Your task to perform on an android device: check google app version Image 0: 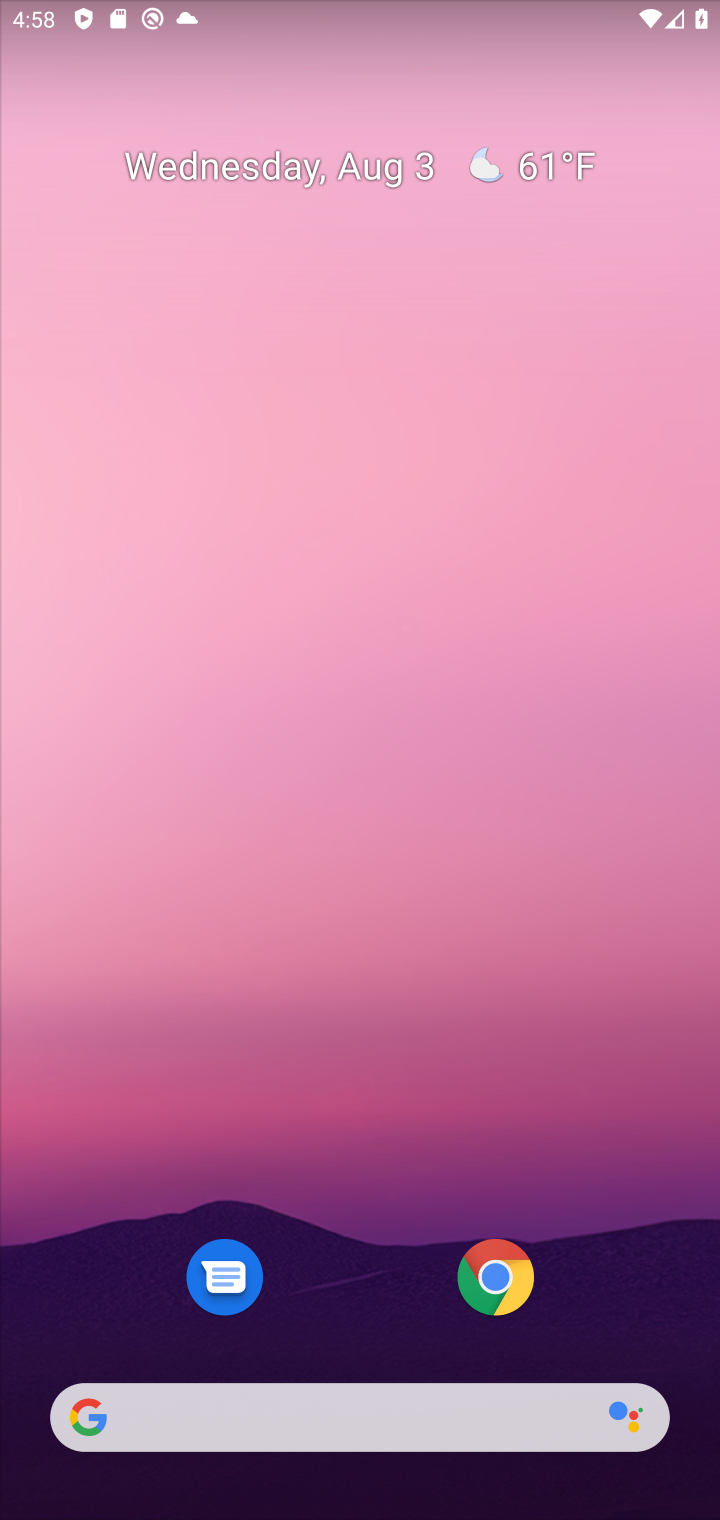
Step 0: drag from (390, 971) to (430, 148)
Your task to perform on an android device: check google app version Image 1: 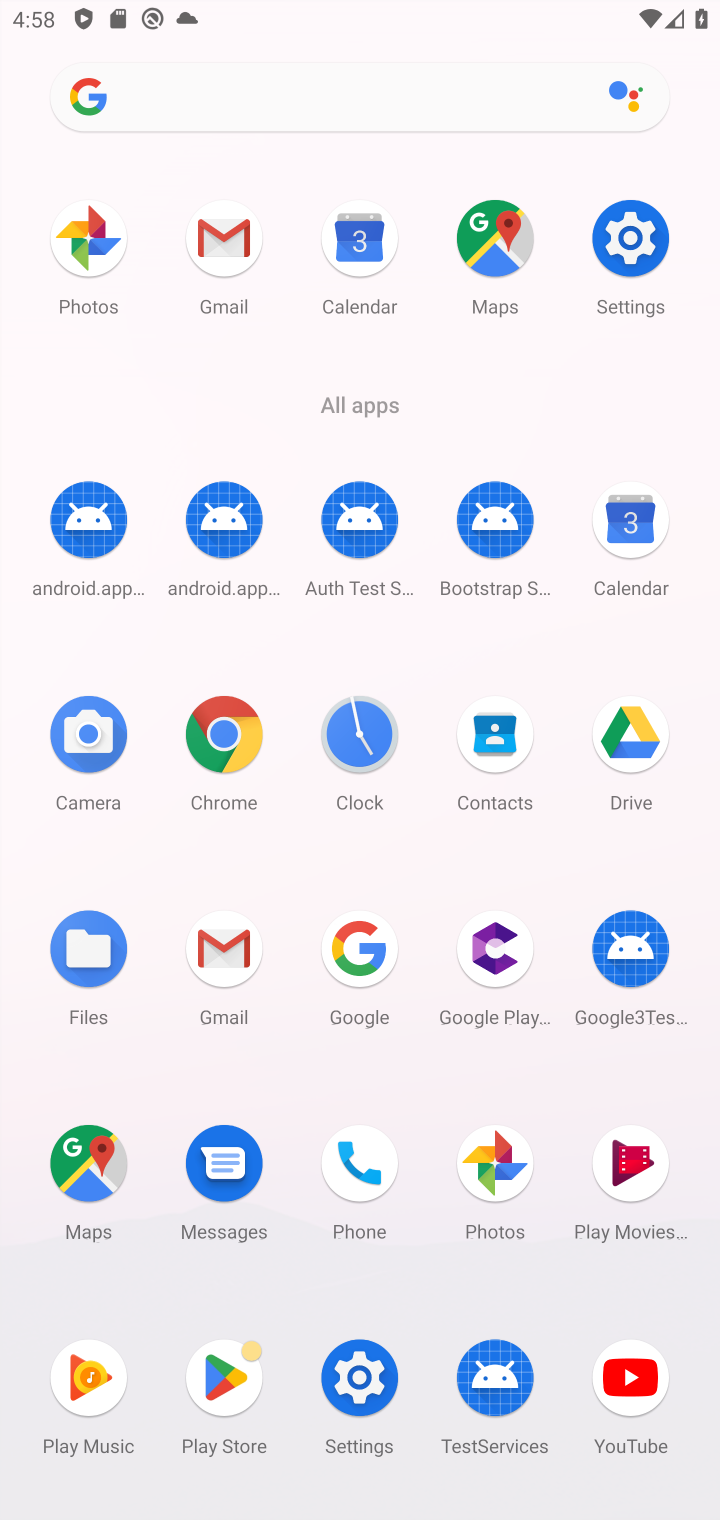
Step 1: click (354, 955)
Your task to perform on an android device: check google app version Image 2: 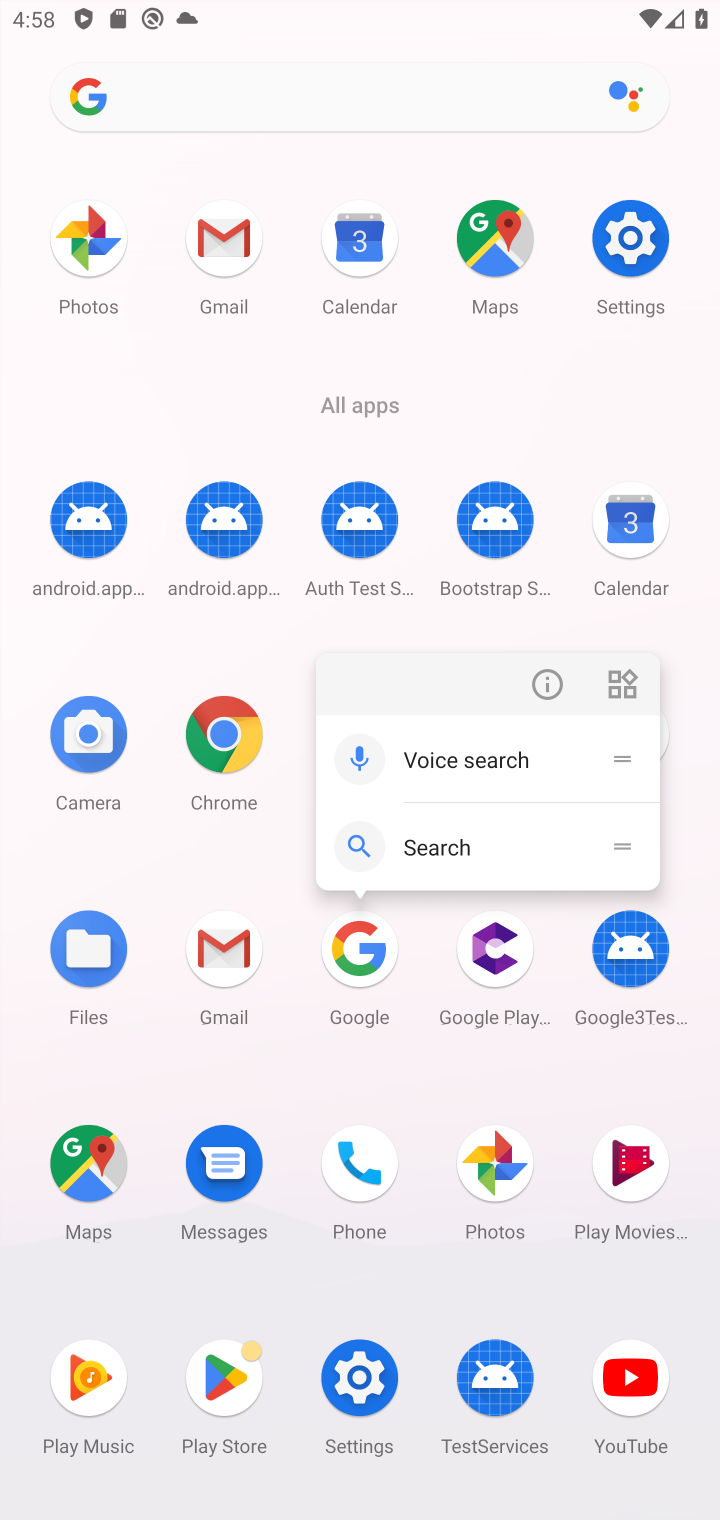
Step 2: click (368, 955)
Your task to perform on an android device: check google app version Image 3: 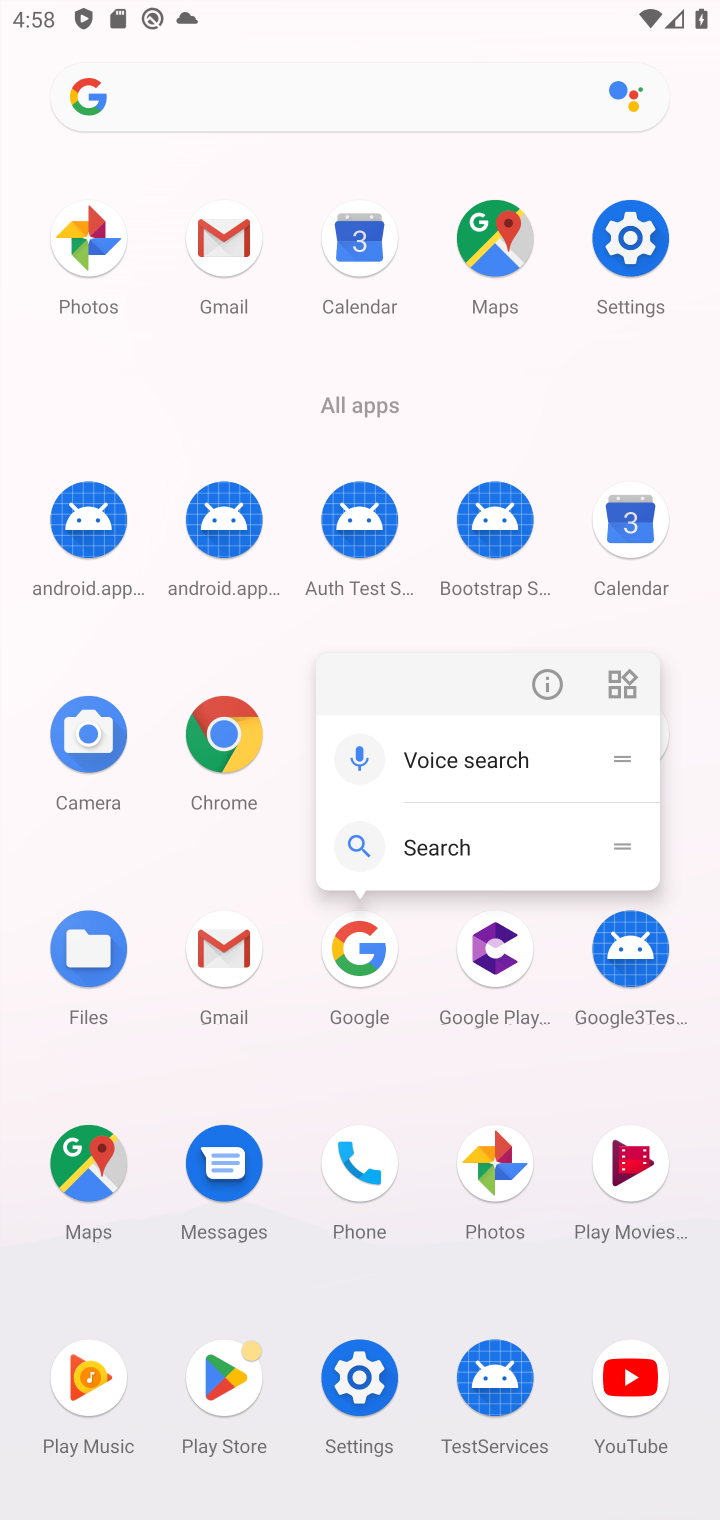
Step 3: click (543, 677)
Your task to perform on an android device: check google app version Image 4: 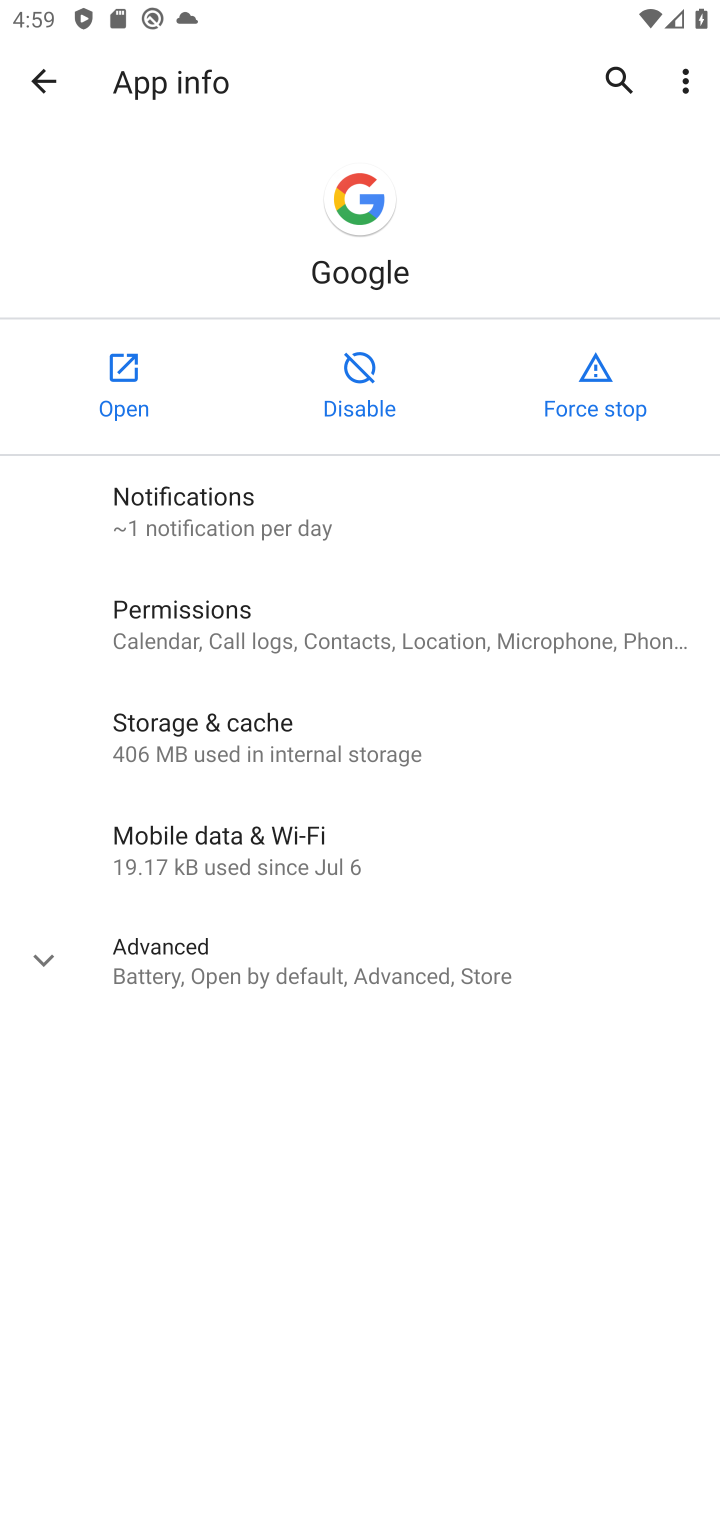
Step 4: click (256, 976)
Your task to perform on an android device: check google app version Image 5: 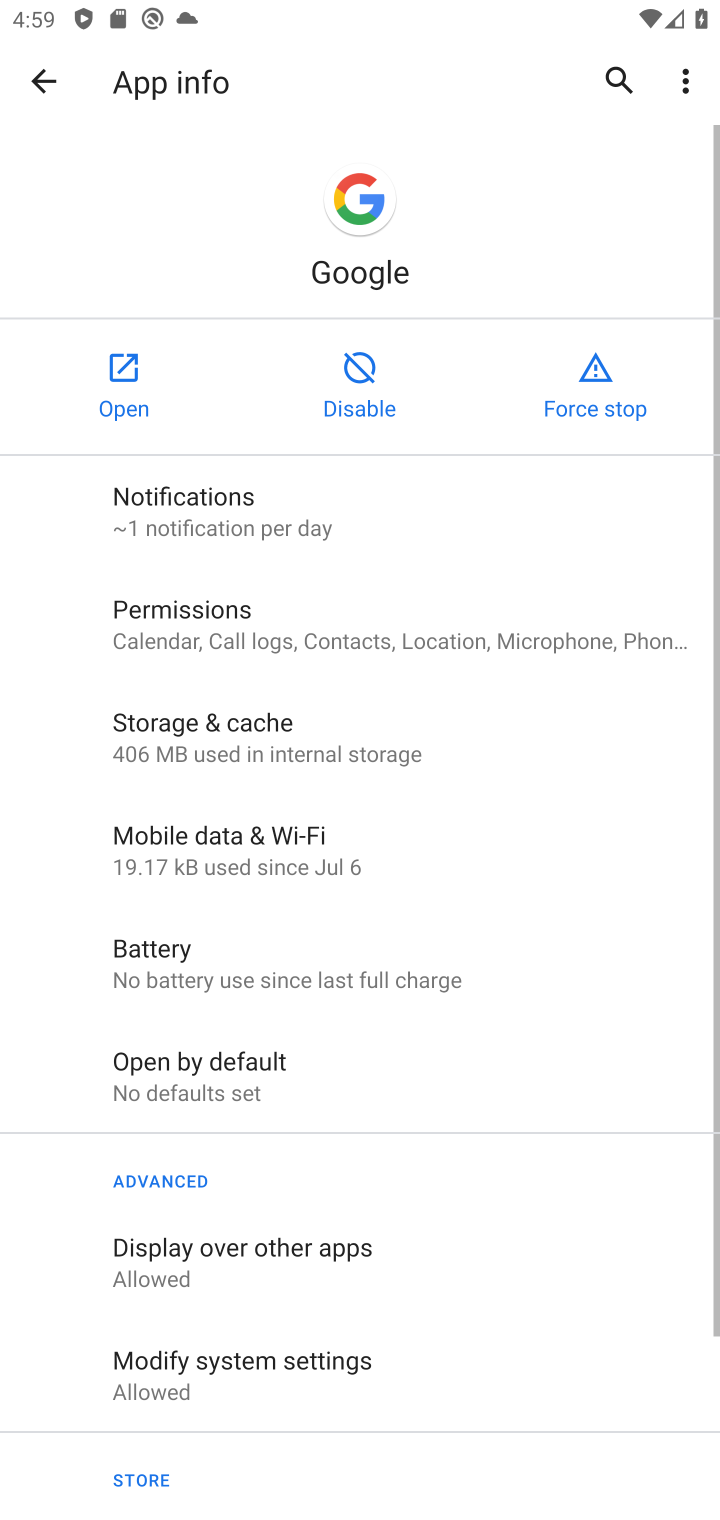
Step 5: task complete